Your task to perform on an android device: Clear the cart on target. Add macbook to the cart on target, then select checkout. Image 0: 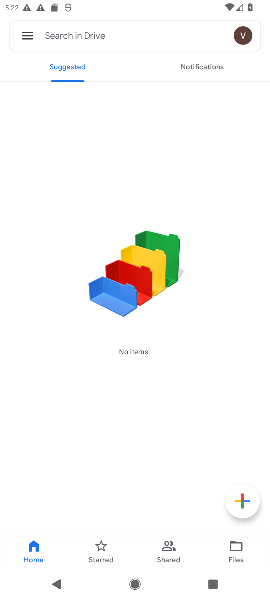
Step 0: press home button
Your task to perform on an android device: Clear the cart on target. Add macbook to the cart on target, then select checkout. Image 1: 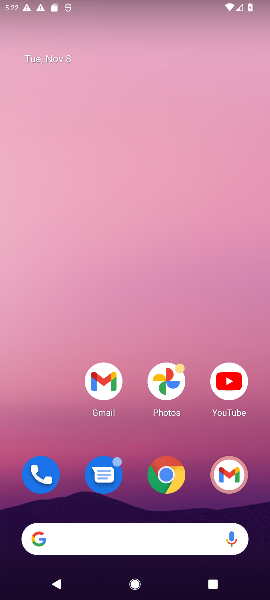
Step 1: drag from (52, 540) to (118, 139)
Your task to perform on an android device: Clear the cart on target. Add macbook to the cart on target, then select checkout. Image 2: 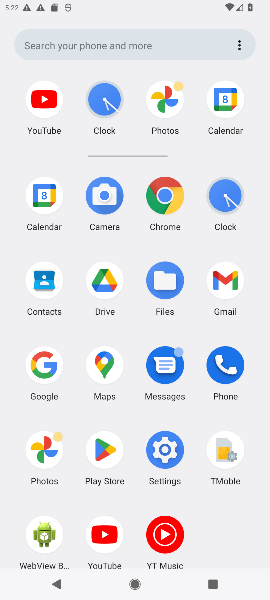
Step 2: click (43, 365)
Your task to perform on an android device: Clear the cart on target. Add macbook to the cart on target, then select checkout. Image 3: 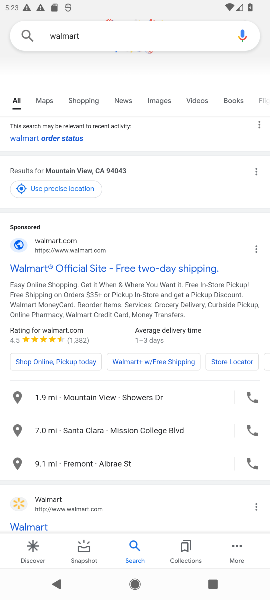
Step 3: click (113, 25)
Your task to perform on an android device: Clear the cart on target. Add macbook to the cart on target, then select checkout. Image 4: 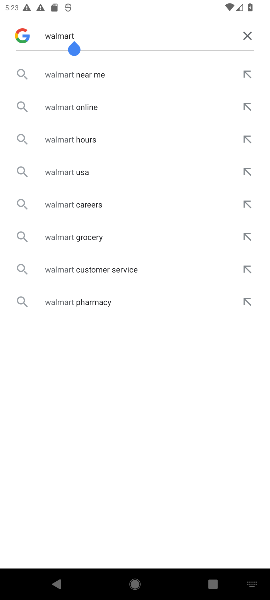
Step 4: click (248, 32)
Your task to perform on an android device: Clear the cart on target. Add macbook to the cart on target, then select checkout. Image 5: 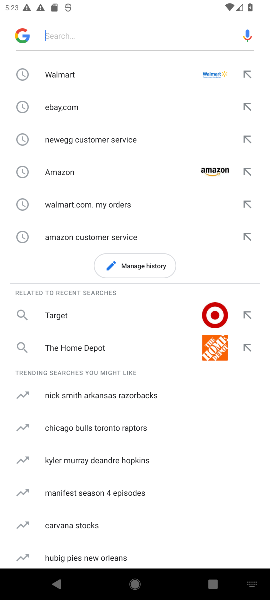
Step 5: click (140, 32)
Your task to perform on an android device: Clear the cart on target. Add macbook to the cart on target, then select checkout. Image 6: 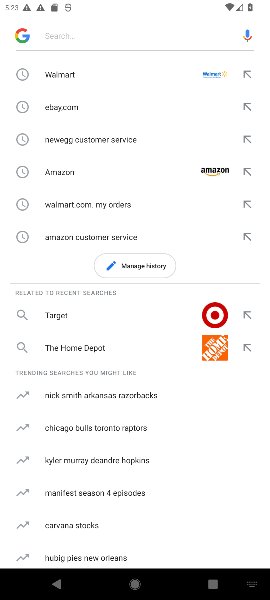
Step 6: type "target "
Your task to perform on an android device: Clear the cart on target. Add macbook to the cart on target, then select checkout. Image 7: 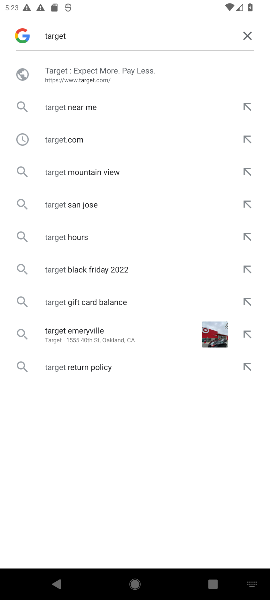
Step 7: click (115, 75)
Your task to perform on an android device: Clear the cart on target. Add macbook to the cart on target, then select checkout. Image 8: 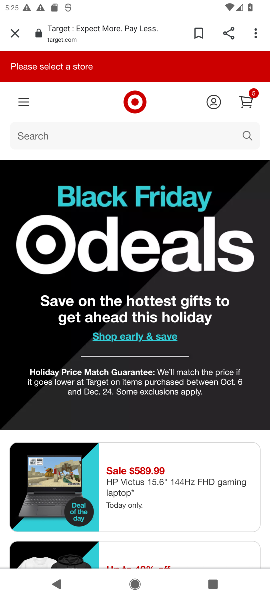
Step 8: drag from (89, 134) to (267, 350)
Your task to perform on an android device: Clear the cart on target. Add macbook to the cart on target, then select checkout. Image 9: 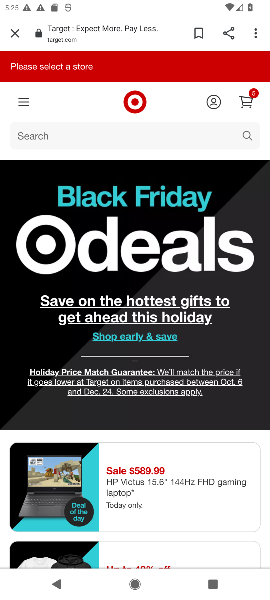
Step 9: click (145, 130)
Your task to perform on an android device: Clear the cart on target. Add macbook to the cart on target, then select checkout. Image 10: 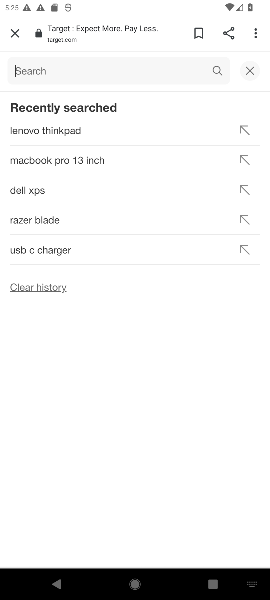
Step 10: type "macbook "
Your task to perform on an android device: Clear the cart on target. Add macbook to the cart on target, then select checkout. Image 11: 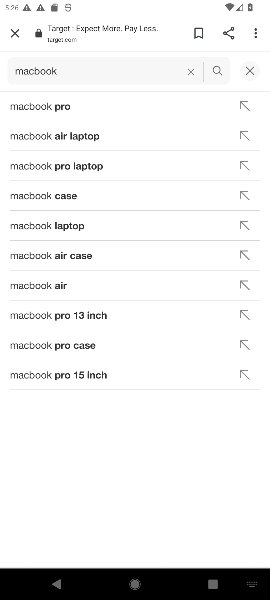
Step 11: click (84, 109)
Your task to perform on an android device: Clear the cart on target. Add macbook to the cart on target, then select checkout. Image 12: 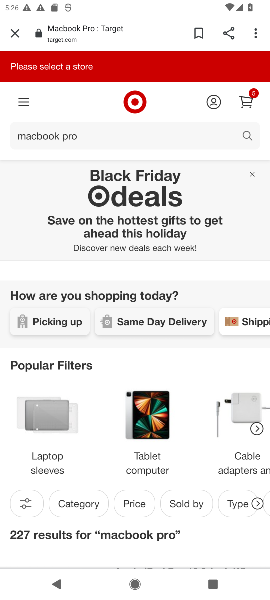
Step 12: drag from (145, 484) to (147, 294)
Your task to perform on an android device: Clear the cart on target. Add macbook to the cart on target, then select checkout. Image 13: 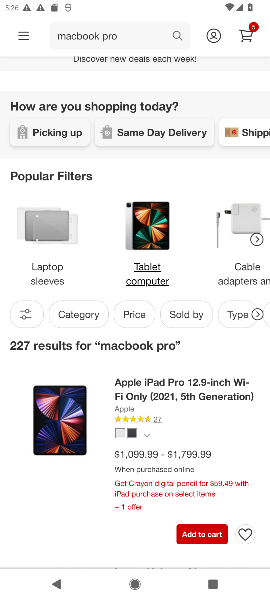
Step 13: click (198, 533)
Your task to perform on an android device: Clear the cart on target. Add macbook to the cart on target, then select checkout. Image 14: 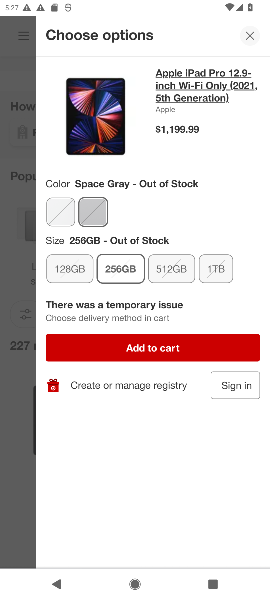
Step 14: click (142, 349)
Your task to perform on an android device: Clear the cart on target. Add macbook to the cart on target, then select checkout. Image 15: 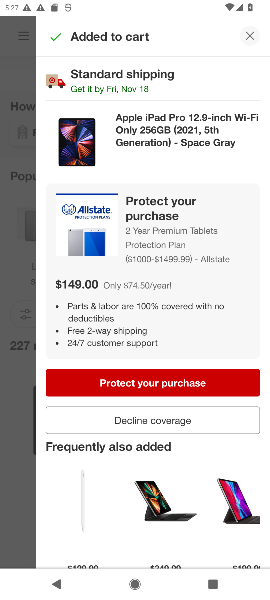
Step 15: task complete